Your task to perform on an android device: turn off location Image 0: 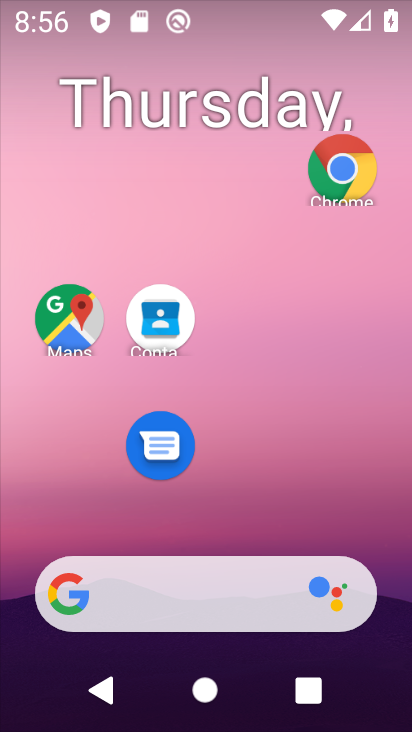
Step 0: drag from (228, 645) to (236, 136)
Your task to perform on an android device: turn off location Image 1: 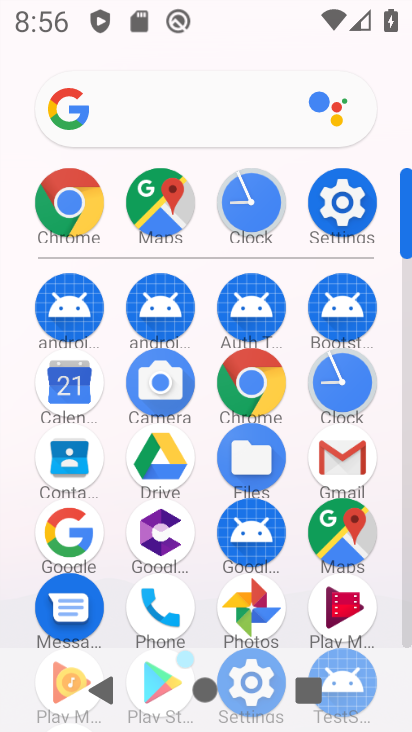
Step 1: click (345, 214)
Your task to perform on an android device: turn off location Image 2: 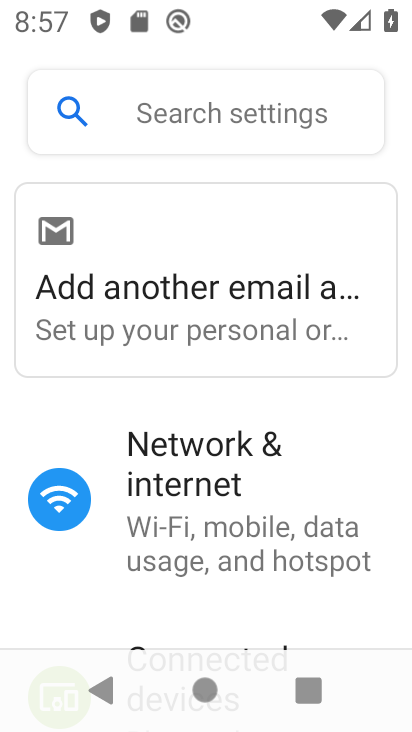
Step 2: click (212, 132)
Your task to perform on an android device: turn off location Image 3: 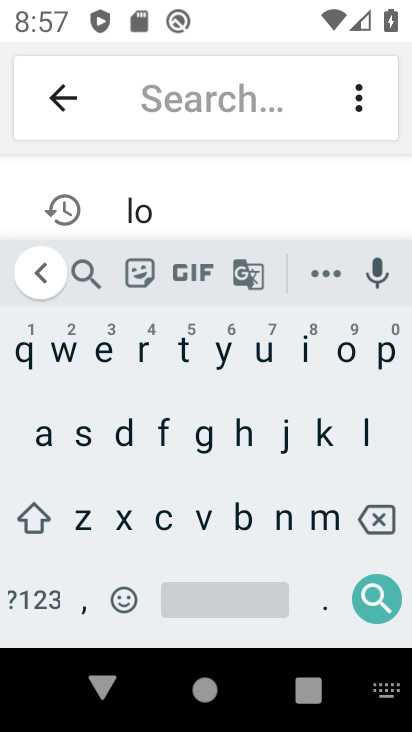
Step 3: click (365, 432)
Your task to perform on an android device: turn off location Image 4: 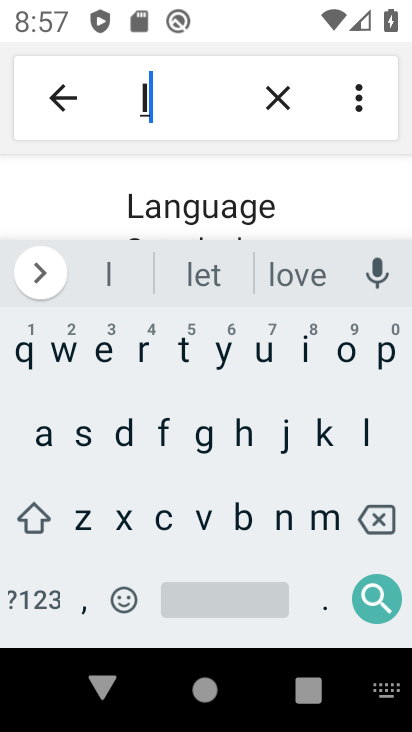
Step 4: click (342, 355)
Your task to perform on an android device: turn off location Image 5: 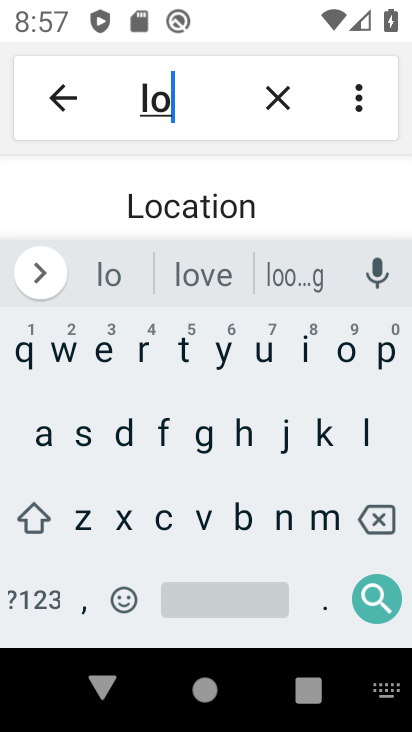
Step 5: click (154, 515)
Your task to perform on an android device: turn off location Image 6: 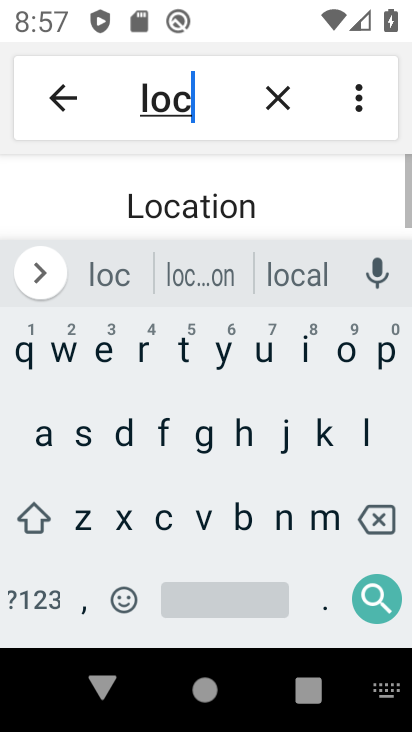
Step 6: click (42, 434)
Your task to perform on an android device: turn off location Image 7: 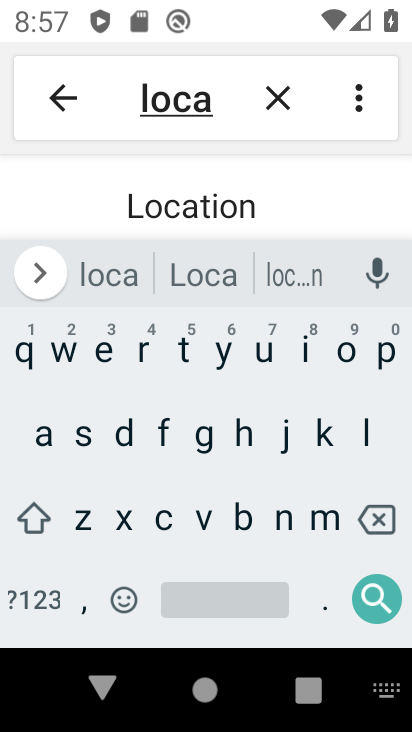
Step 7: press back button
Your task to perform on an android device: turn off location Image 8: 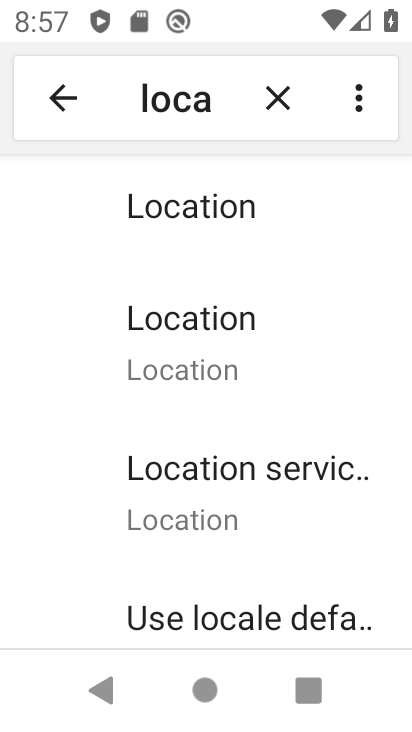
Step 8: click (220, 337)
Your task to perform on an android device: turn off location Image 9: 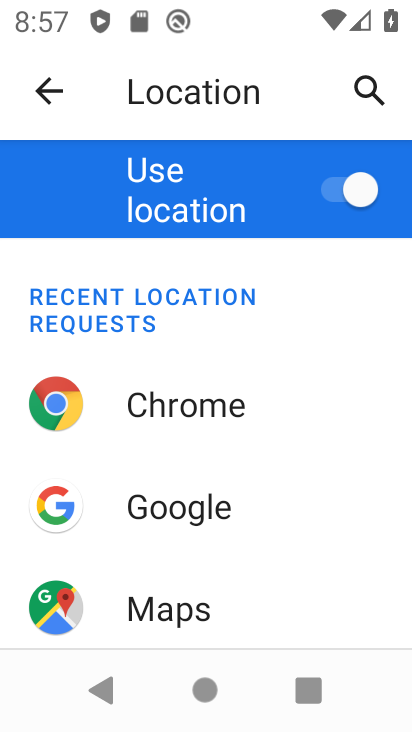
Step 9: click (313, 193)
Your task to perform on an android device: turn off location Image 10: 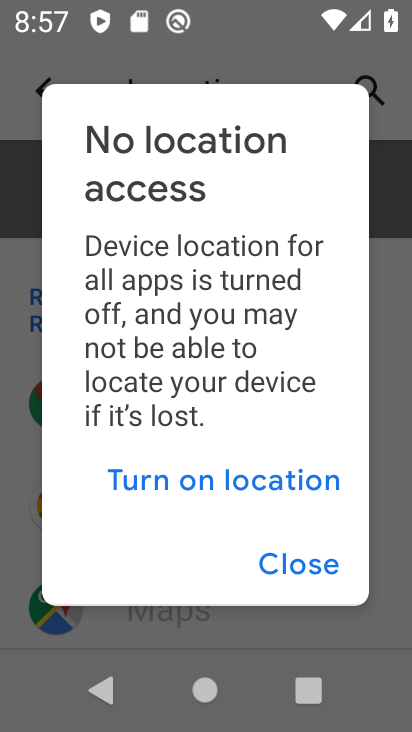
Step 10: task complete